Your task to perform on an android device: move an email to a new category in the gmail app Image 0: 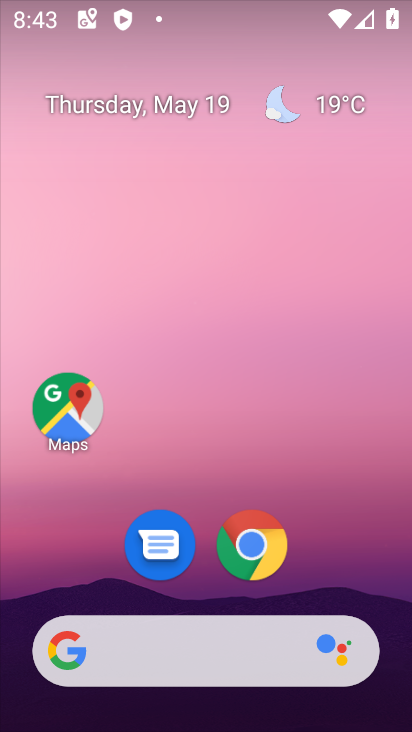
Step 0: drag from (321, 577) to (227, 78)
Your task to perform on an android device: move an email to a new category in the gmail app Image 1: 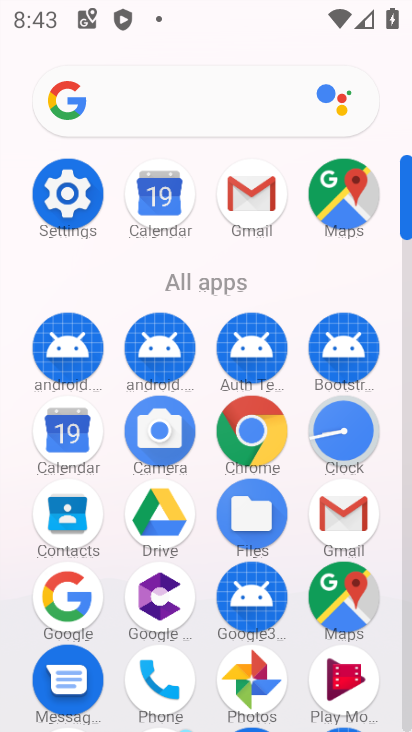
Step 1: click (240, 196)
Your task to perform on an android device: move an email to a new category in the gmail app Image 2: 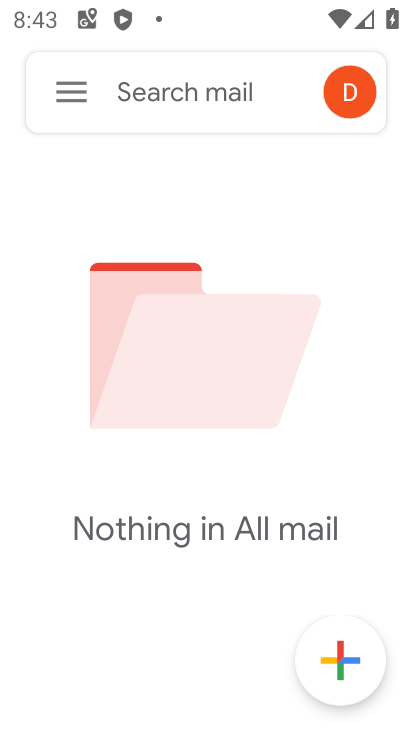
Step 2: click (47, 99)
Your task to perform on an android device: move an email to a new category in the gmail app Image 3: 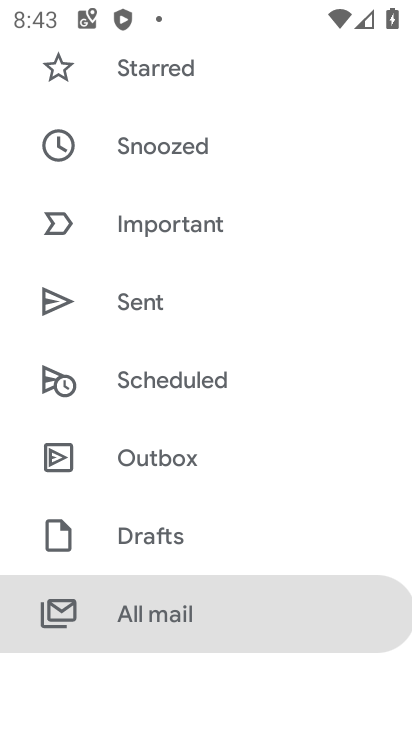
Step 3: task complete